Your task to perform on an android device: set the stopwatch Image 0: 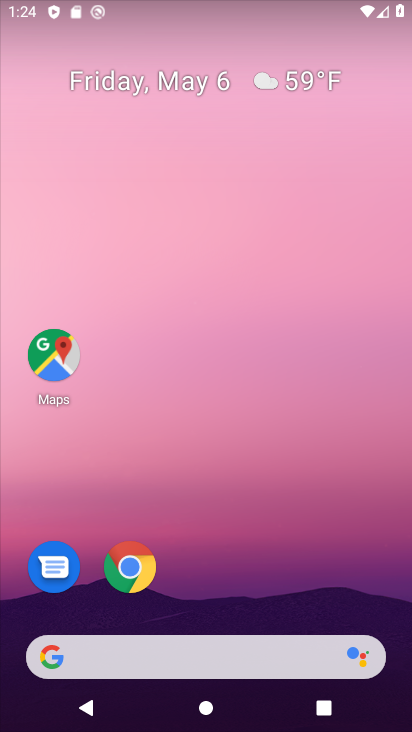
Step 0: drag from (303, 563) to (293, 72)
Your task to perform on an android device: set the stopwatch Image 1: 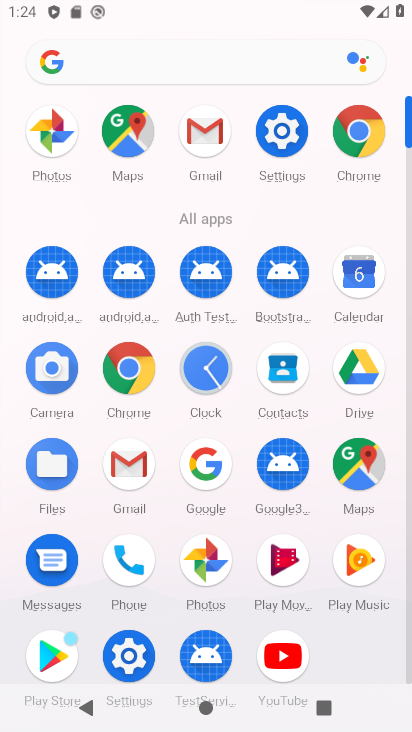
Step 1: click (217, 369)
Your task to perform on an android device: set the stopwatch Image 2: 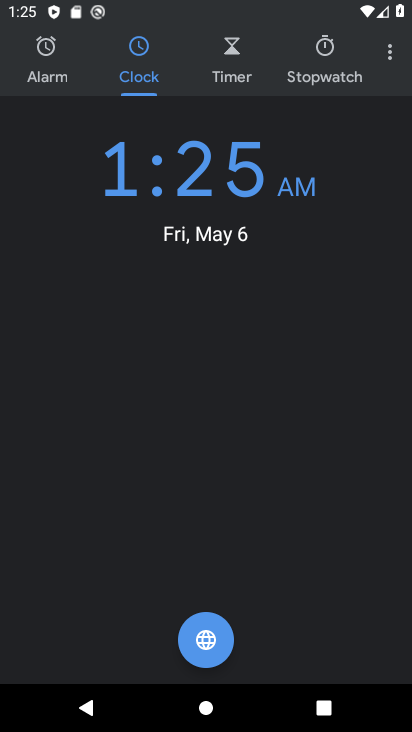
Step 2: click (328, 59)
Your task to perform on an android device: set the stopwatch Image 3: 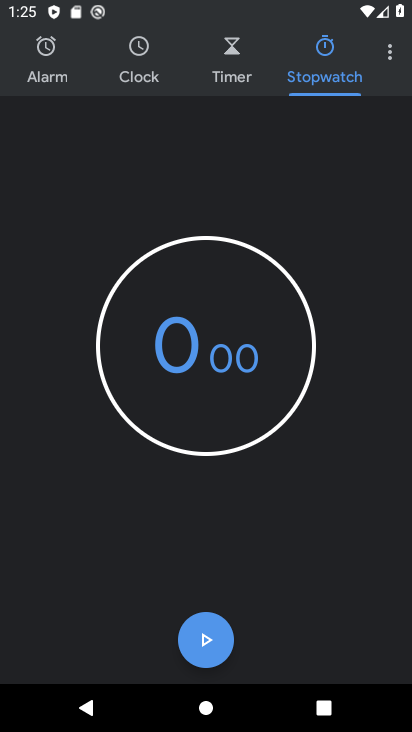
Step 3: task complete